Your task to perform on an android device: Go to Google Image 0: 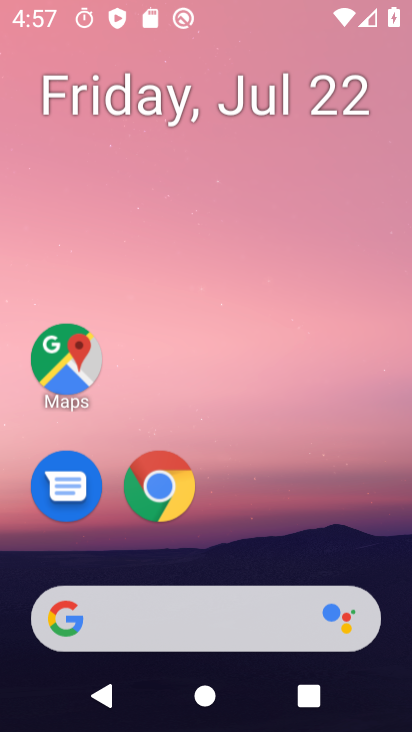
Step 0: click (284, 115)
Your task to perform on an android device: Go to Google Image 1: 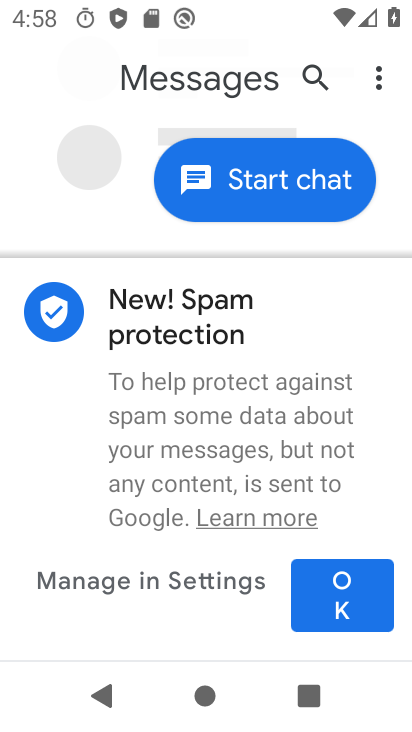
Step 1: press home button
Your task to perform on an android device: Go to Google Image 2: 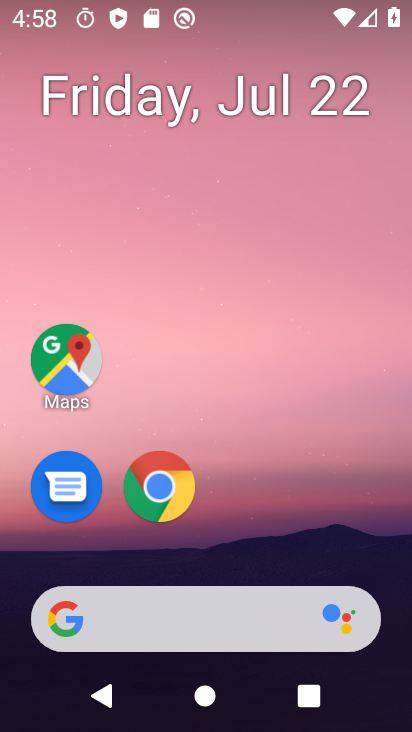
Step 2: drag from (254, 518) to (190, 99)
Your task to perform on an android device: Go to Google Image 3: 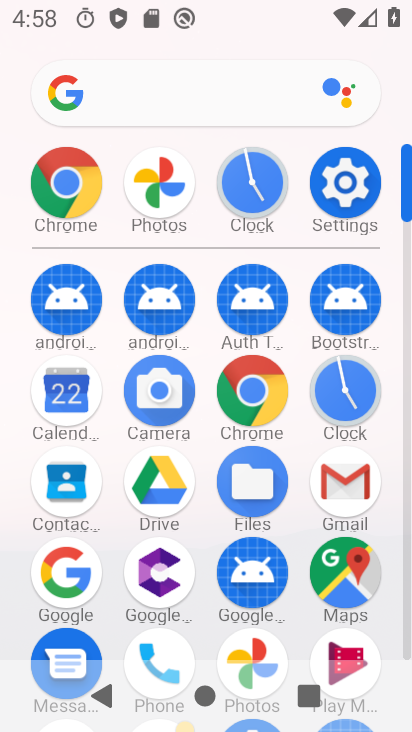
Step 3: click (74, 580)
Your task to perform on an android device: Go to Google Image 4: 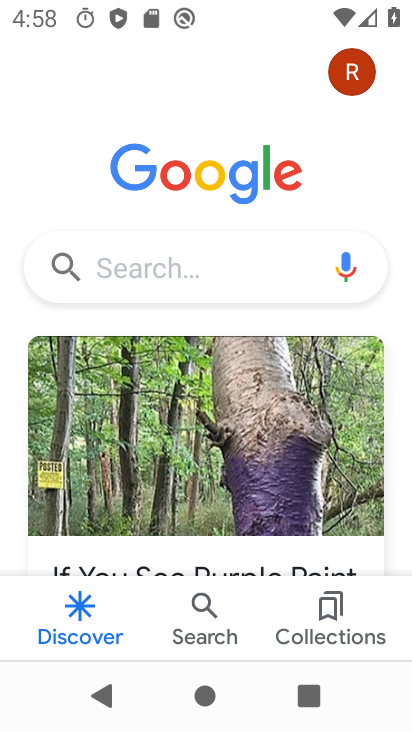
Step 4: task complete